Your task to perform on an android device: turn off smart reply in the gmail app Image 0: 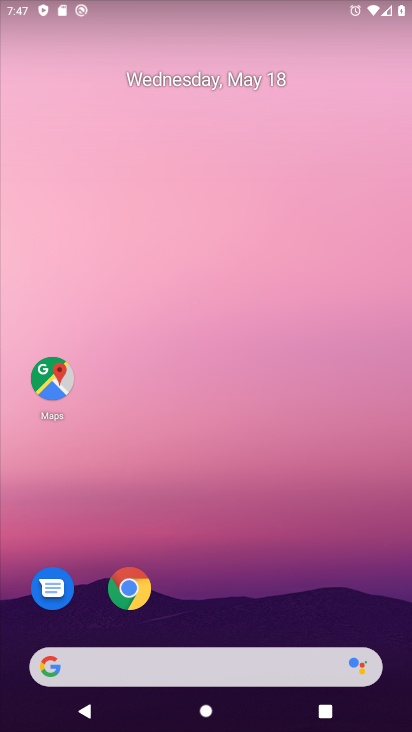
Step 0: drag from (201, 603) to (212, 207)
Your task to perform on an android device: turn off smart reply in the gmail app Image 1: 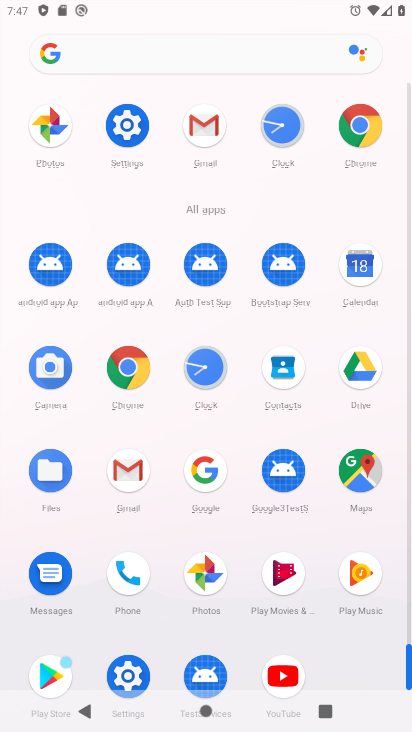
Step 1: click (132, 484)
Your task to perform on an android device: turn off smart reply in the gmail app Image 2: 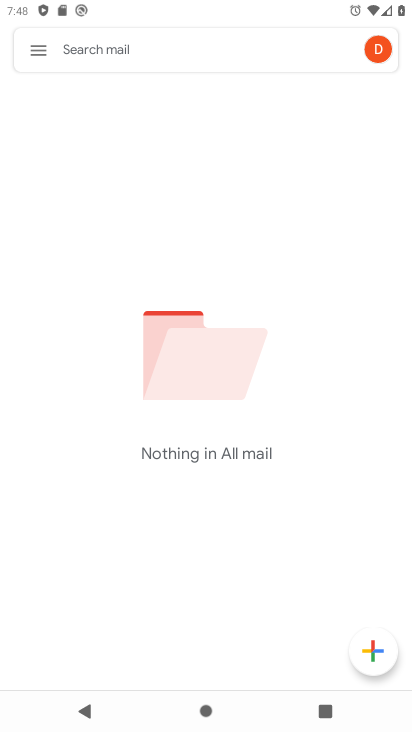
Step 2: click (43, 45)
Your task to perform on an android device: turn off smart reply in the gmail app Image 3: 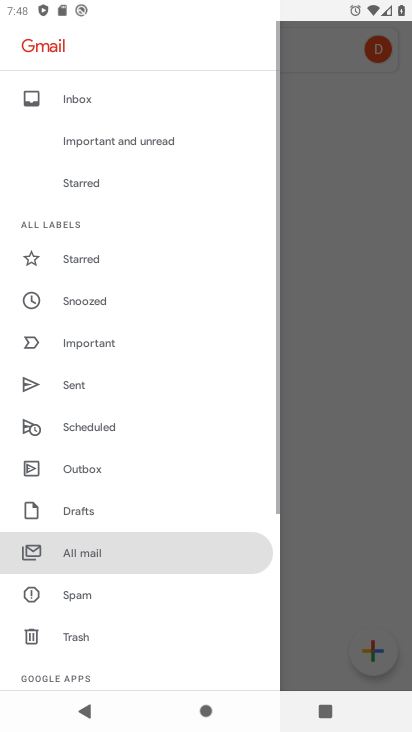
Step 3: drag from (90, 641) to (134, 219)
Your task to perform on an android device: turn off smart reply in the gmail app Image 4: 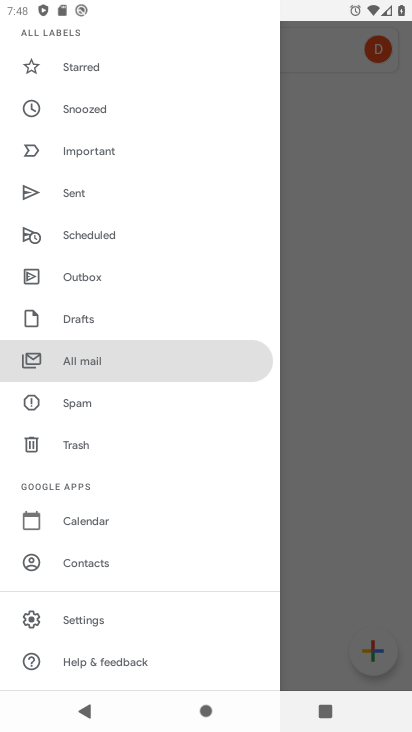
Step 4: click (86, 617)
Your task to perform on an android device: turn off smart reply in the gmail app Image 5: 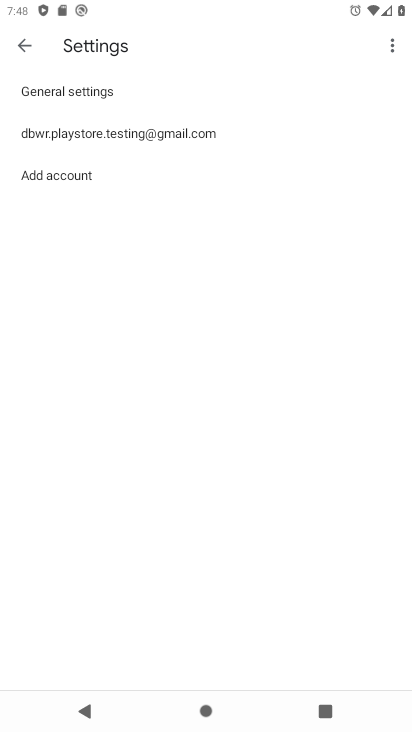
Step 5: click (112, 137)
Your task to perform on an android device: turn off smart reply in the gmail app Image 6: 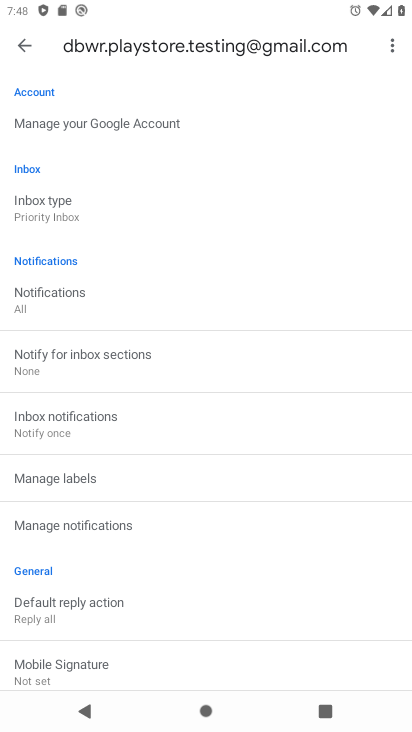
Step 6: drag from (144, 611) to (183, 320)
Your task to perform on an android device: turn off smart reply in the gmail app Image 7: 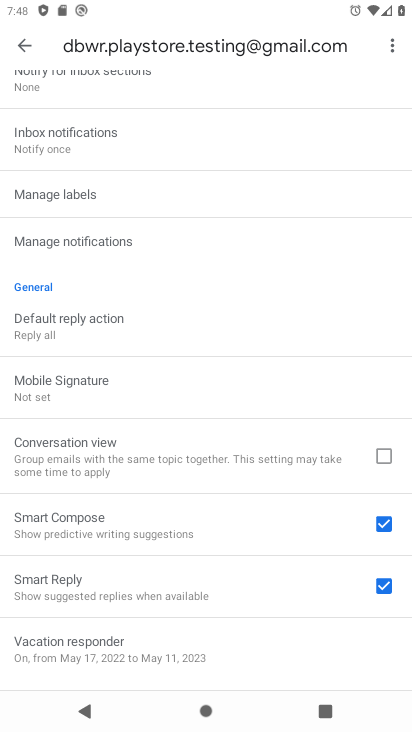
Step 7: click (388, 575)
Your task to perform on an android device: turn off smart reply in the gmail app Image 8: 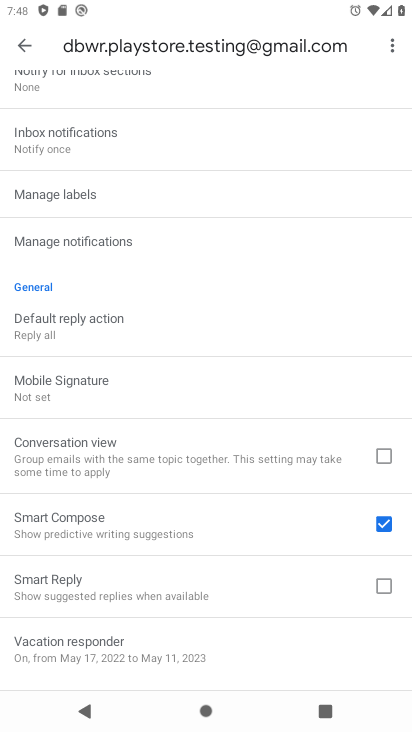
Step 8: task complete